Your task to perform on an android device: Open Youtube and go to the subscriptions tab Image 0: 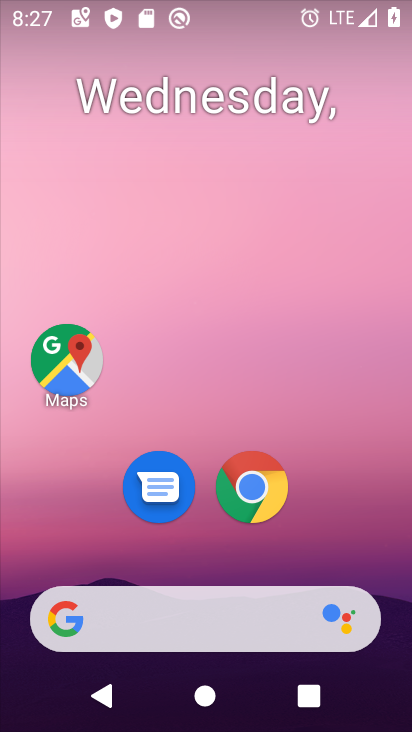
Step 0: drag from (348, 566) to (394, 13)
Your task to perform on an android device: Open Youtube and go to the subscriptions tab Image 1: 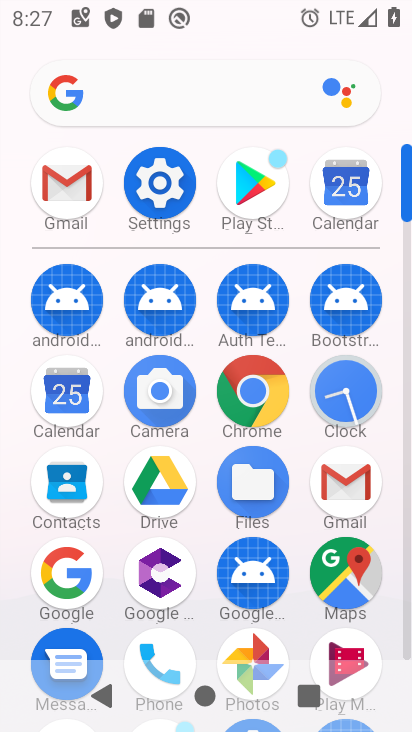
Step 1: click (407, 603)
Your task to perform on an android device: Open Youtube and go to the subscriptions tab Image 2: 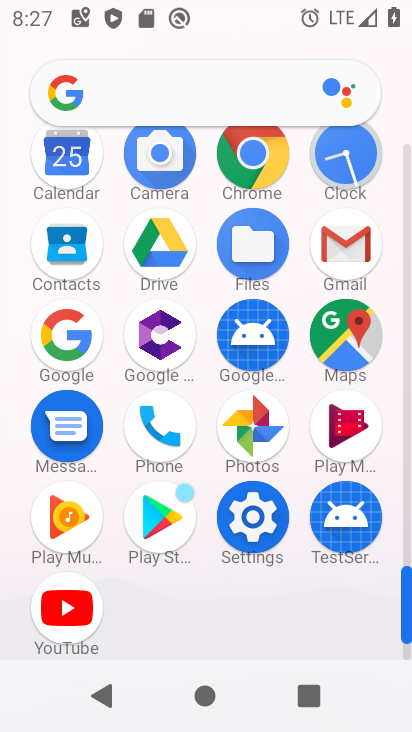
Step 2: click (61, 619)
Your task to perform on an android device: Open Youtube and go to the subscriptions tab Image 3: 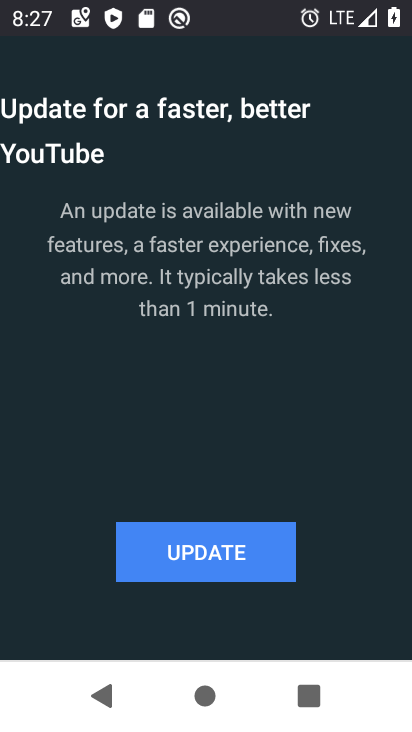
Step 3: click (218, 559)
Your task to perform on an android device: Open Youtube and go to the subscriptions tab Image 4: 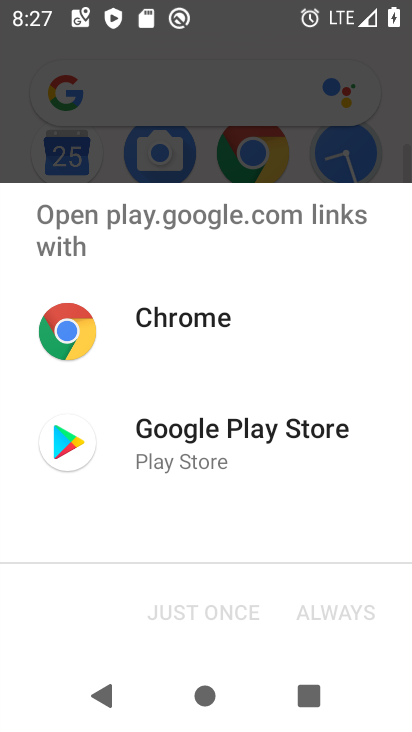
Step 4: click (76, 442)
Your task to perform on an android device: Open Youtube and go to the subscriptions tab Image 5: 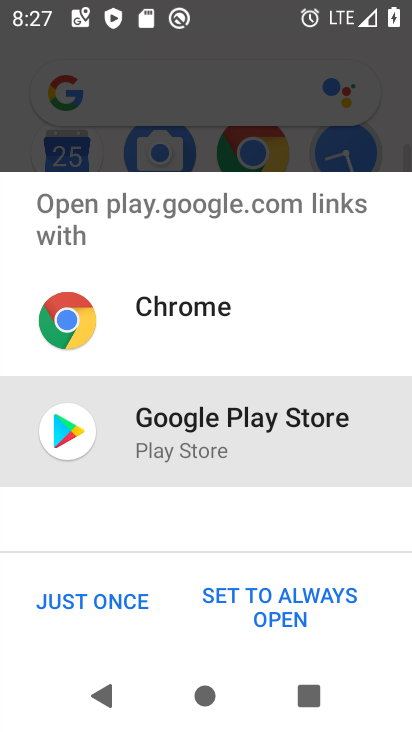
Step 5: click (78, 597)
Your task to perform on an android device: Open Youtube and go to the subscriptions tab Image 6: 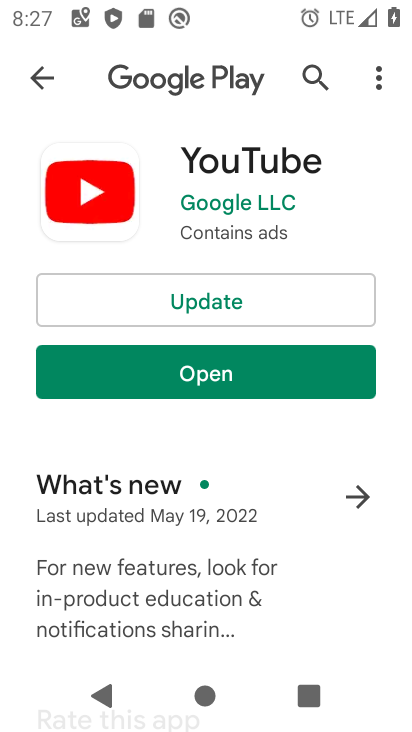
Step 6: click (171, 309)
Your task to perform on an android device: Open Youtube and go to the subscriptions tab Image 7: 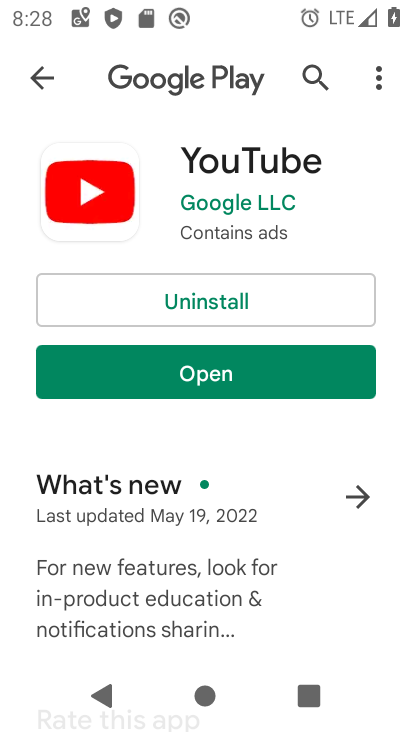
Step 7: click (174, 379)
Your task to perform on an android device: Open Youtube and go to the subscriptions tab Image 8: 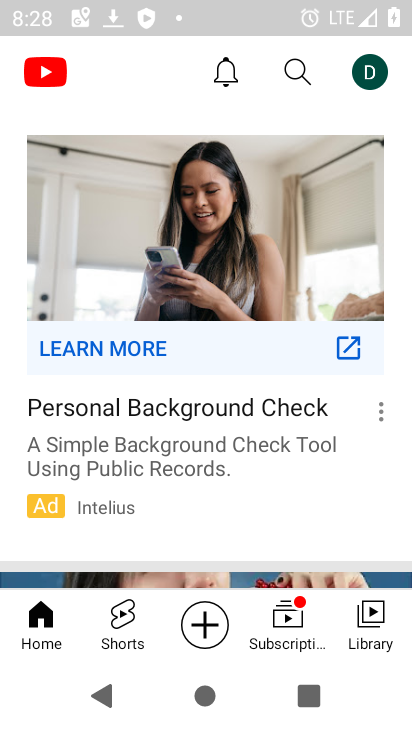
Step 8: click (284, 632)
Your task to perform on an android device: Open Youtube and go to the subscriptions tab Image 9: 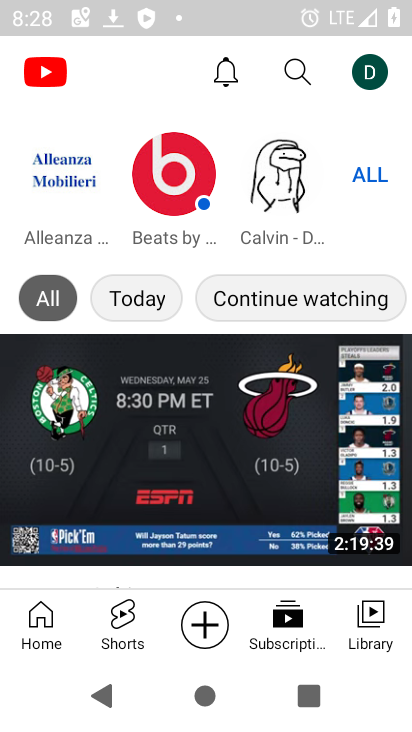
Step 9: task complete